Your task to perform on an android device: Is it going to rain today? Image 0: 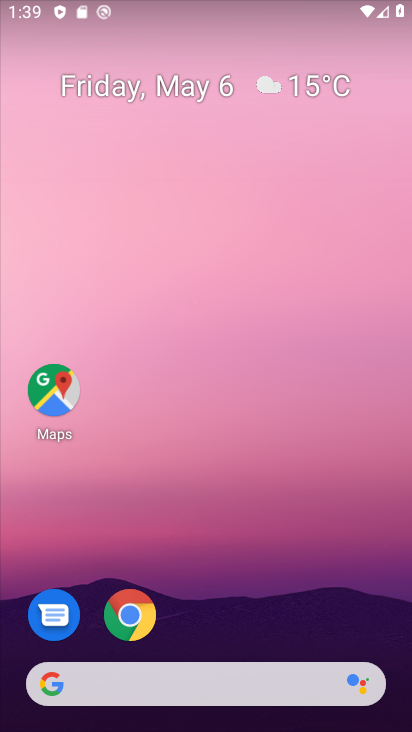
Step 0: click (145, 622)
Your task to perform on an android device: Is it going to rain today? Image 1: 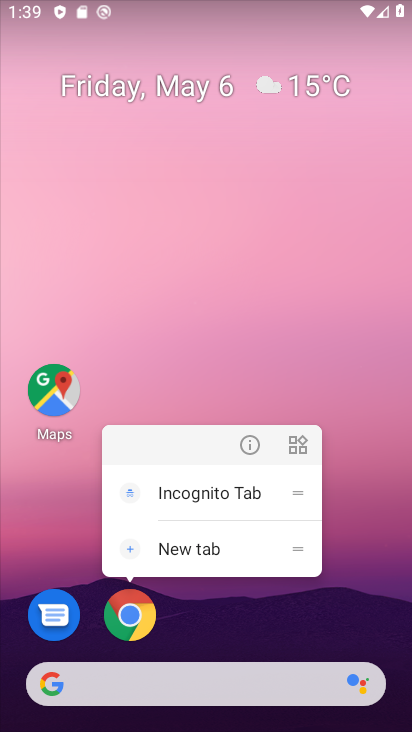
Step 1: click (110, 621)
Your task to perform on an android device: Is it going to rain today? Image 2: 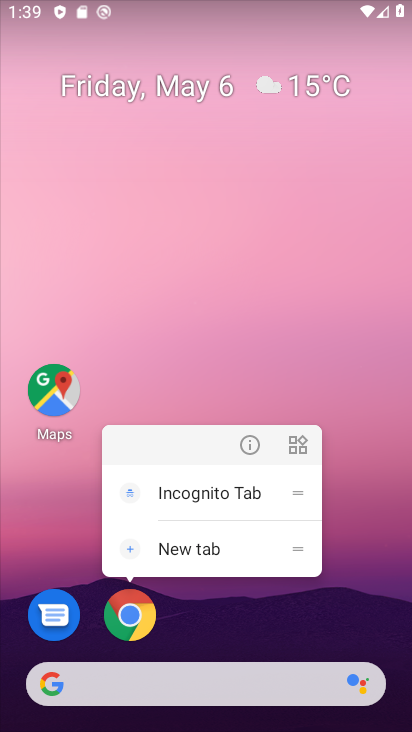
Step 2: click (127, 620)
Your task to perform on an android device: Is it going to rain today? Image 3: 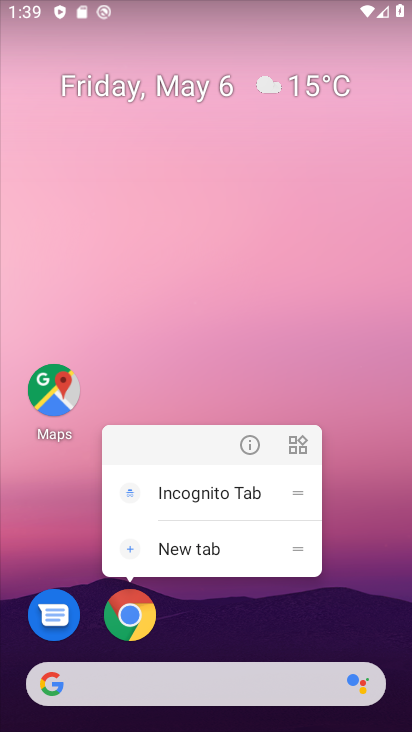
Step 3: click (135, 621)
Your task to perform on an android device: Is it going to rain today? Image 4: 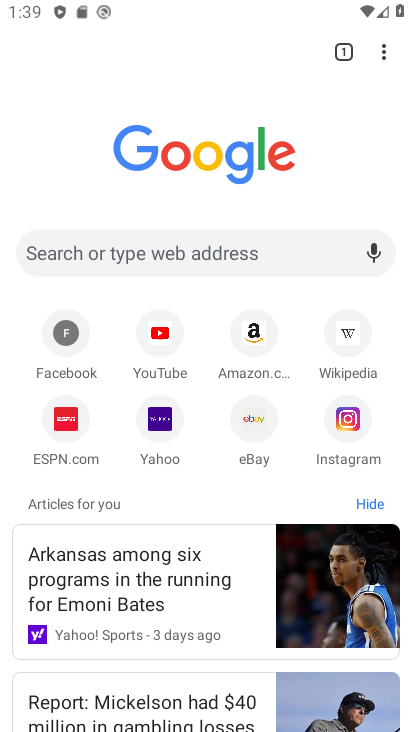
Step 4: click (179, 251)
Your task to perform on an android device: Is it going to rain today? Image 5: 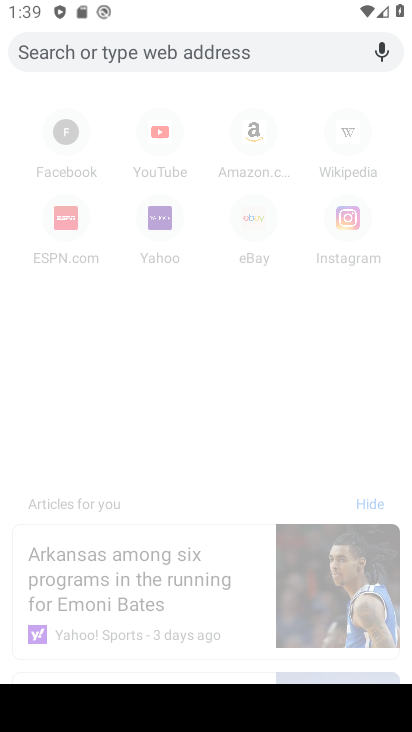
Step 5: type "is it going to rain today?"
Your task to perform on an android device: Is it going to rain today? Image 6: 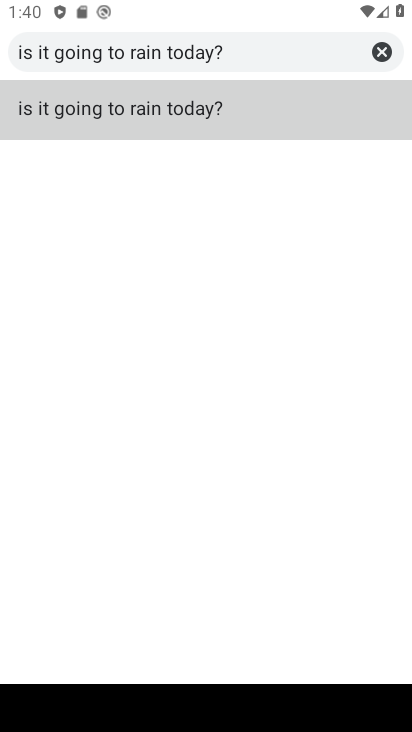
Step 6: click (119, 112)
Your task to perform on an android device: Is it going to rain today? Image 7: 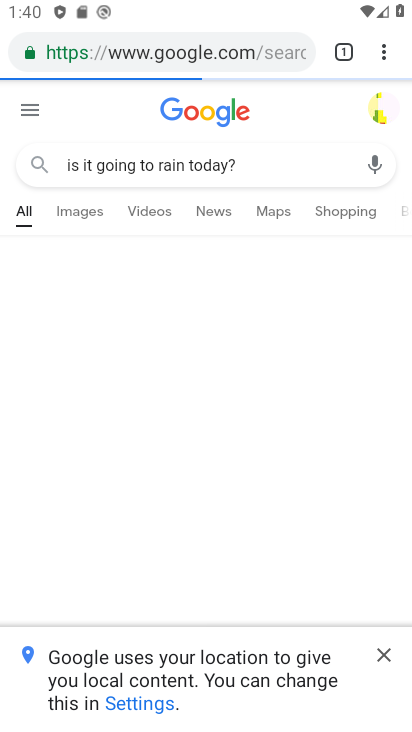
Step 7: click (386, 655)
Your task to perform on an android device: Is it going to rain today? Image 8: 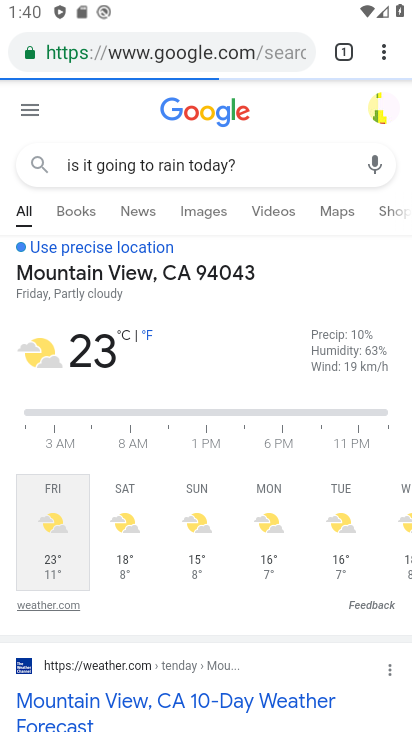
Step 8: task complete